Your task to perform on an android device: snooze an email in the gmail app Image 0: 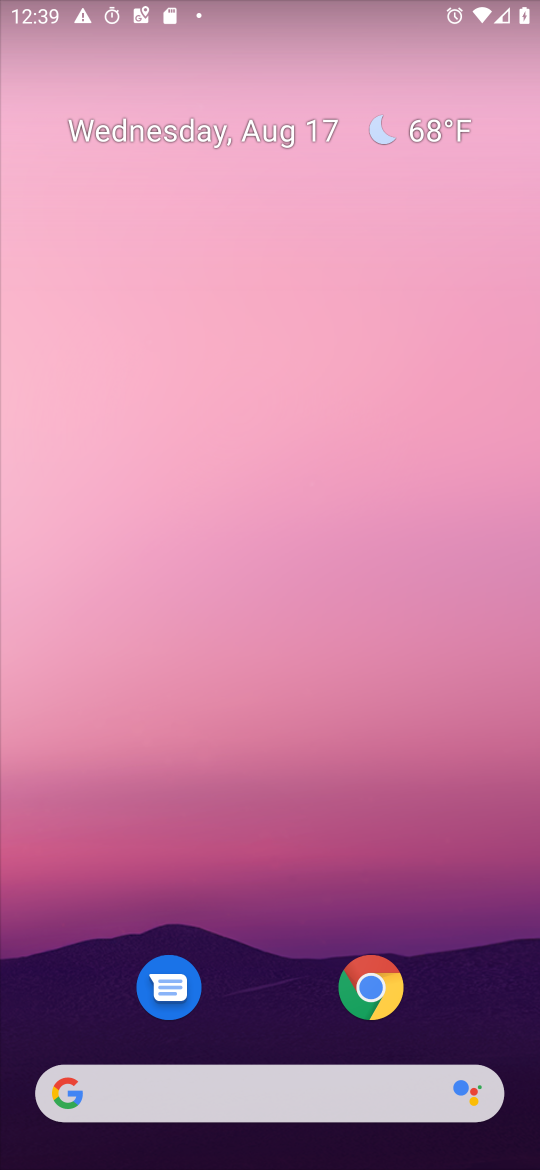
Step 0: drag from (1, 1125) to (104, 417)
Your task to perform on an android device: snooze an email in the gmail app Image 1: 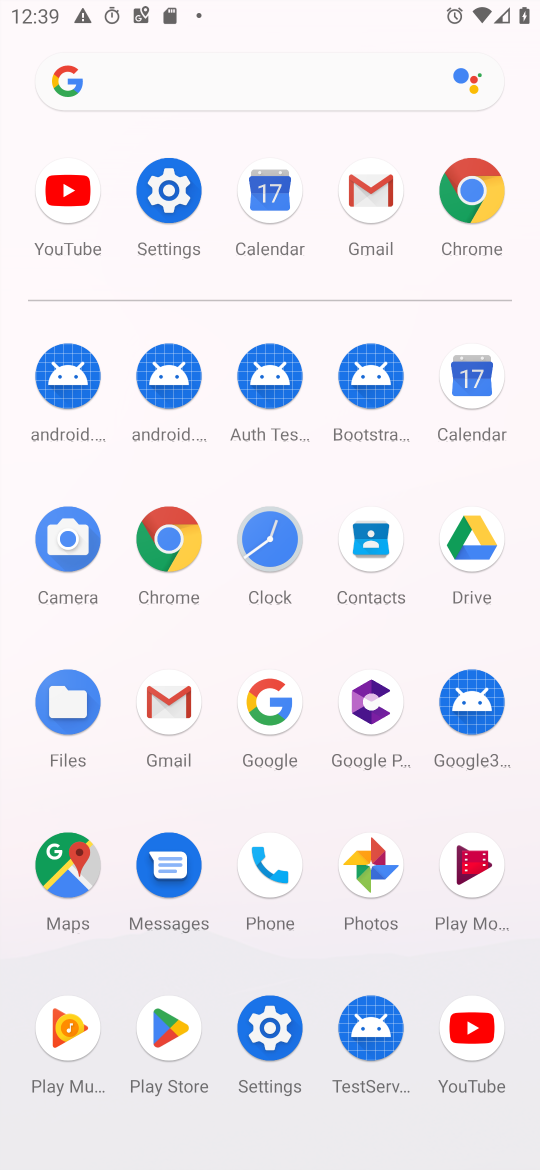
Step 1: click (170, 705)
Your task to perform on an android device: snooze an email in the gmail app Image 2: 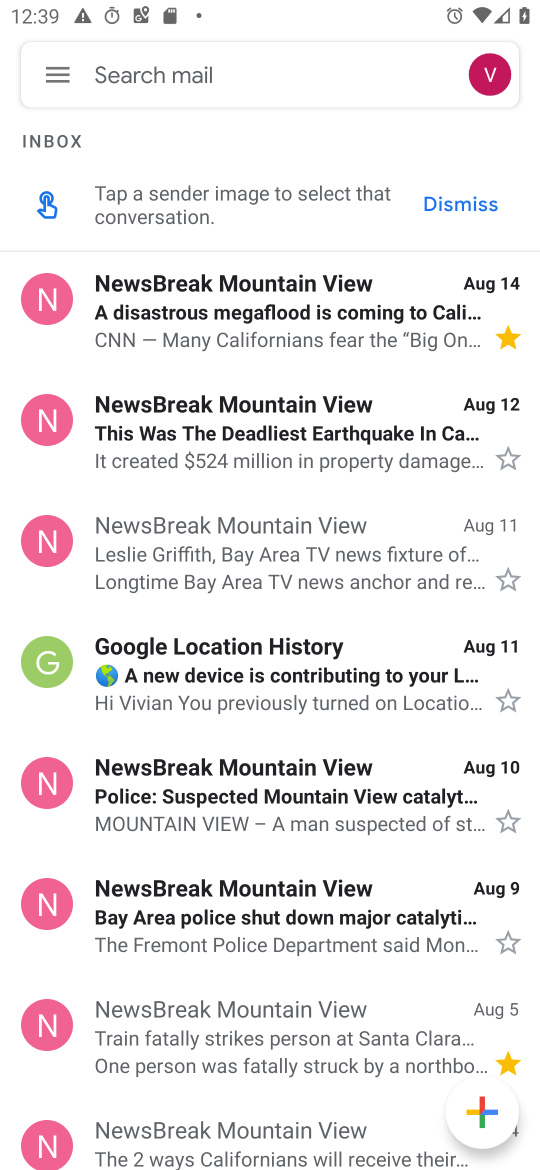
Step 2: click (58, 75)
Your task to perform on an android device: snooze an email in the gmail app Image 3: 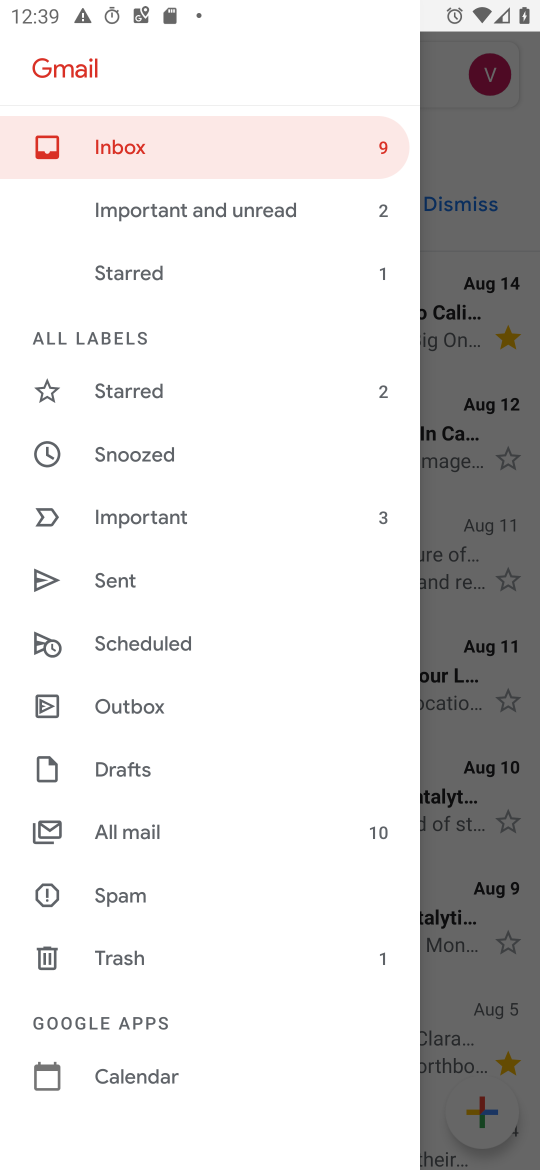
Step 3: click (116, 436)
Your task to perform on an android device: snooze an email in the gmail app Image 4: 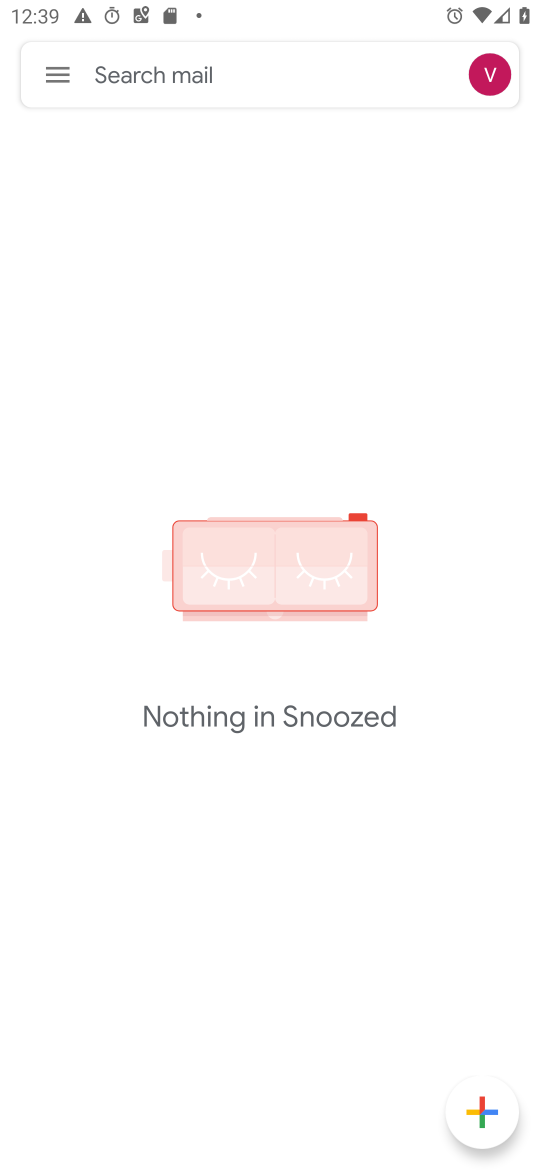
Step 4: task complete